Your task to perform on an android device: open sync settings in chrome Image 0: 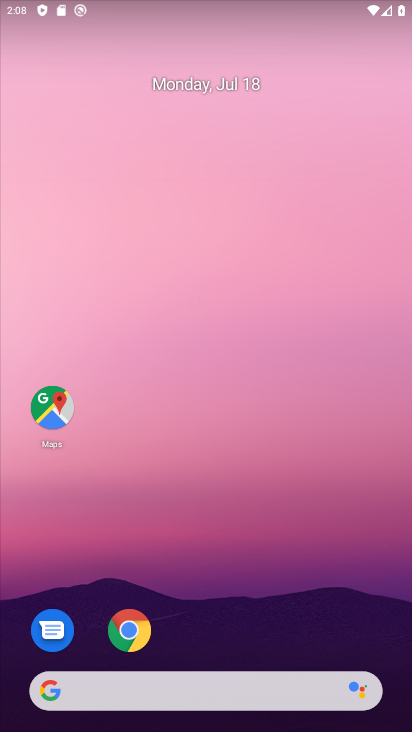
Step 0: drag from (393, 655) to (222, 43)
Your task to perform on an android device: open sync settings in chrome Image 1: 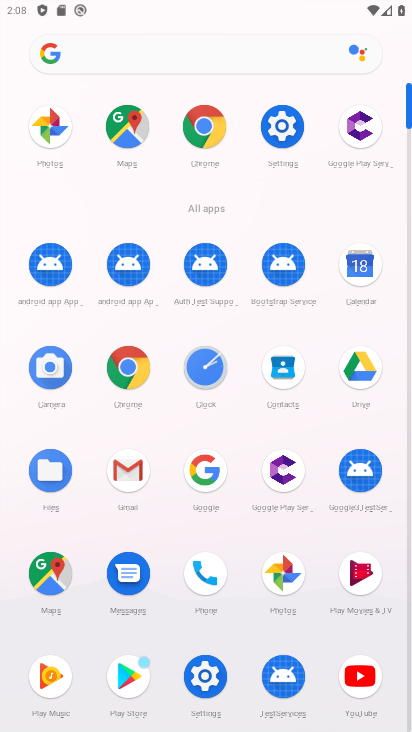
Step 1: click (118, 382)
Your task to perform on an android device: open sync settings in chrome Image 2: 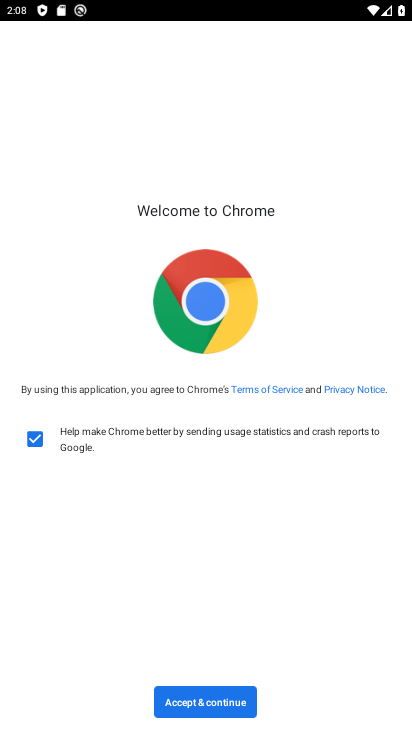
Step 2: click (211, 686)
Your task to perform on an android device: open sync settings in chrome Image 3: 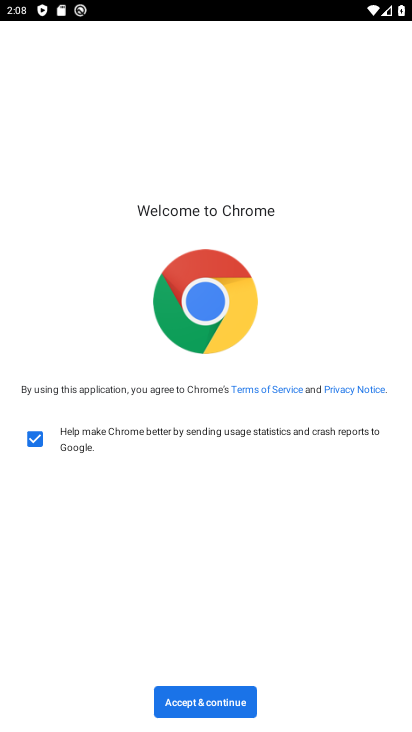
Step 3: click (197, 705)
Your task to perform on an android device: open sync settings in chrome Image 4: 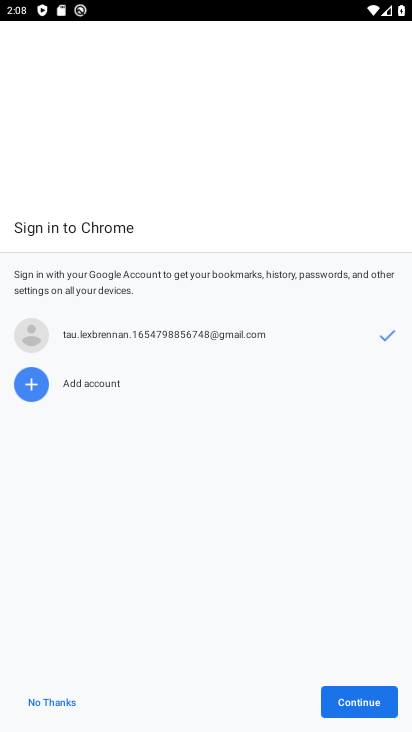
Step 4: click (360, 703)
Your task to perform on an android device: open sync settings in chrome Image 5: 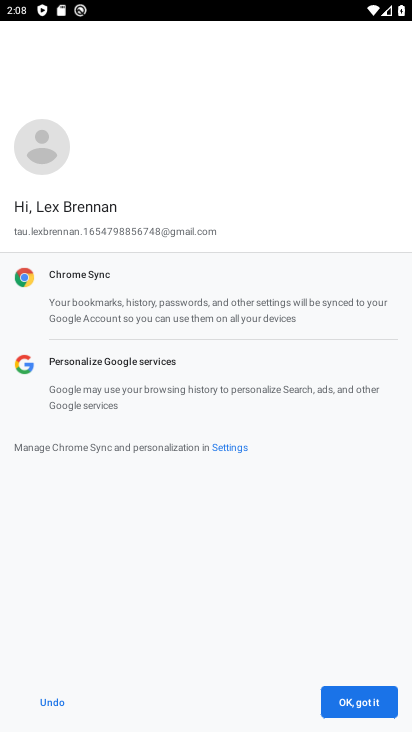
Step 5: click (360, 703)
Your task to perform on an android device: open sync settings in chrome Image 6: 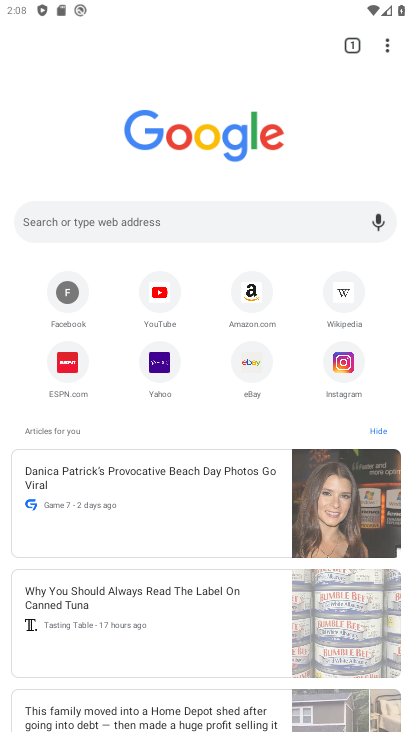
Step 6: click (384, 40)
Your task to perform on an android device: open sync settings in chrome Image 7: 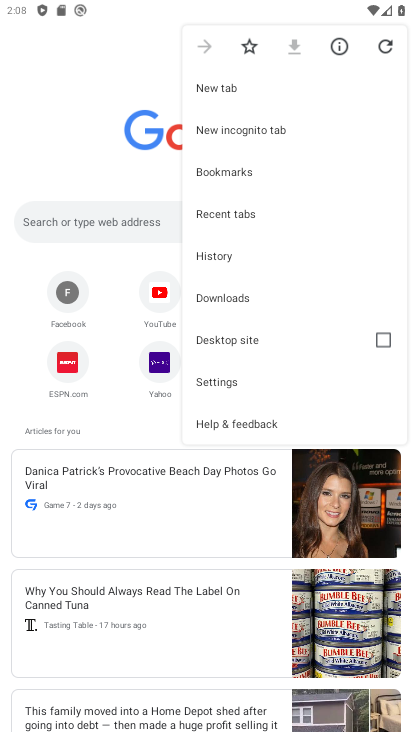
Step 7: click (251, 390)
Your task to perform on an android device: open sync settings in chrome Image 8: 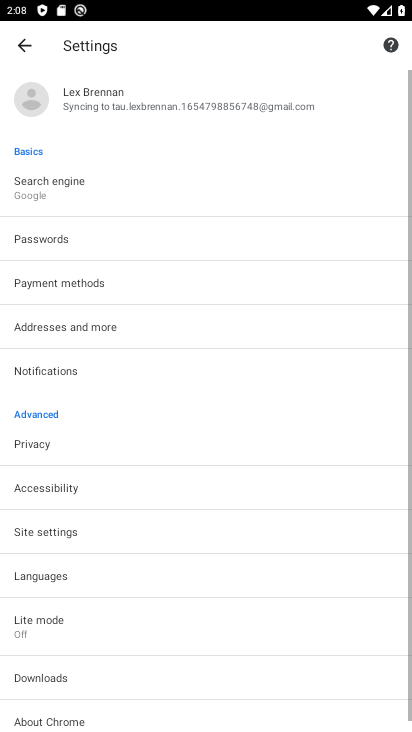
Step 8: click (57, 523)
Your task to perform on an android device: open sync settings in chrome Image 9: 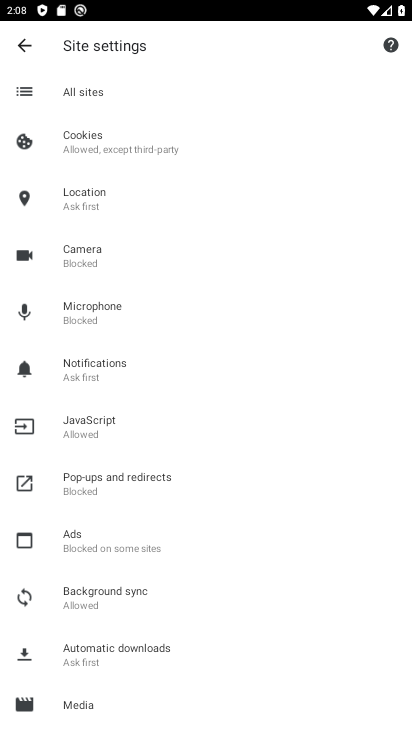
Step 9: click (96, 603)
Your task to perform on an android device: open sync settings in chrome Image 10: 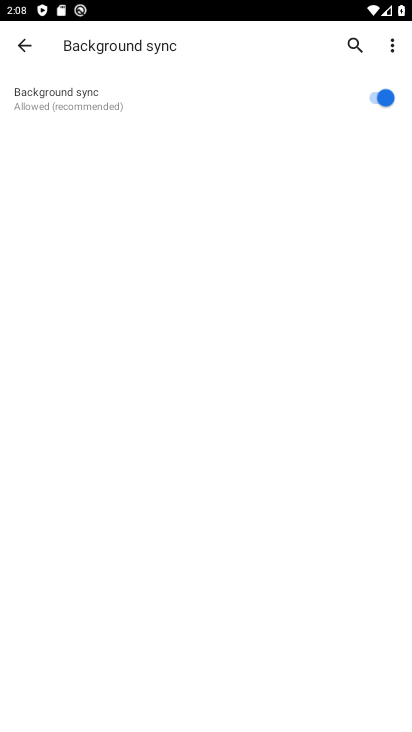
Step 10: task complete